Your task to perform on an android device: Open display settings Image 0: 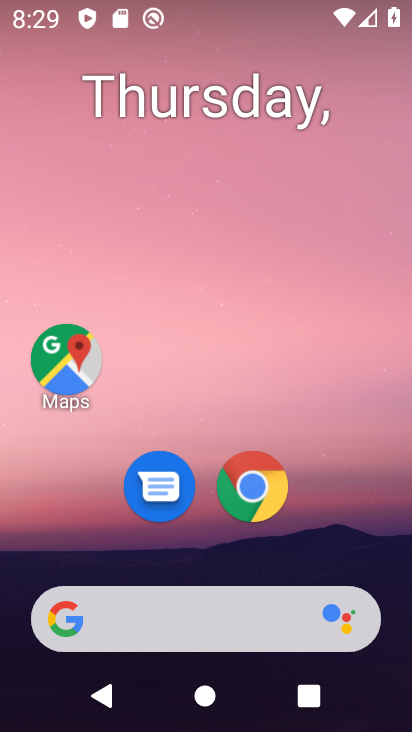
Step 0: drag from (188, 280) to (231, 19)
Your task to perform on an android device: Open display settings Image 1: 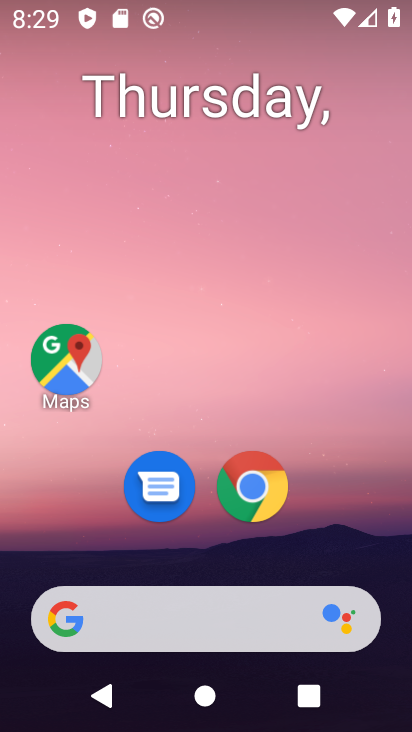
Step 1: drag from (124, 466) to (179, 22)
Your task to perform on an android device: Open display settings Image 2: 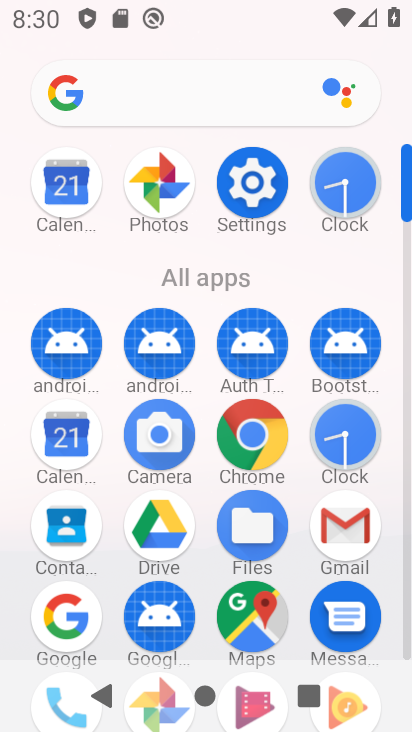
Step 2: click (280, 187)
Your task to perform on an android device: Open display settings Image 3: 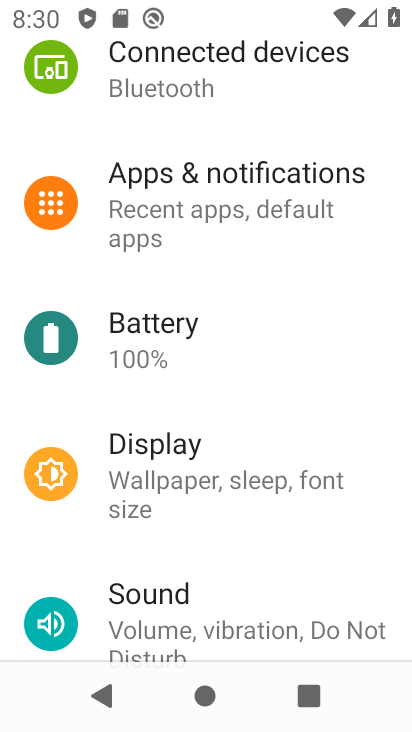
Step 3: click (175, 451)
Your task to perform on an android device: Open display settings Image 4: 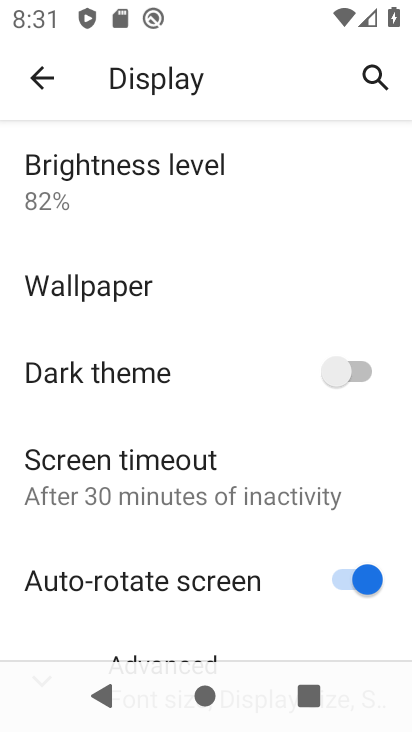
Step 4: task complete